Your task to perform on an android device: find snoozed emails in the gmail app Image 0: 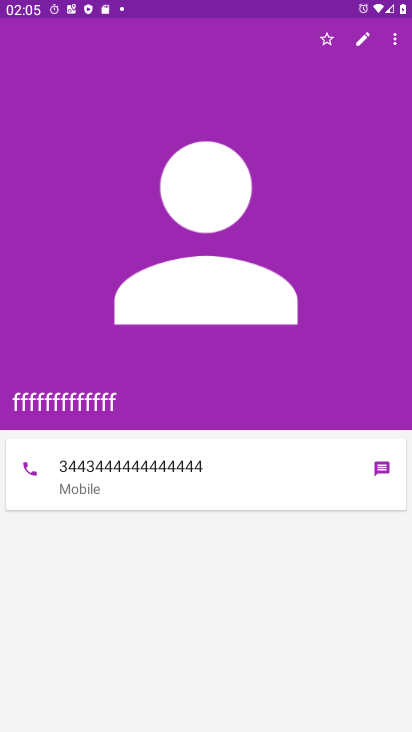
Step 0: press home button
Your task to perform on an android device: find snoozed emails in the gmail app Image 1: 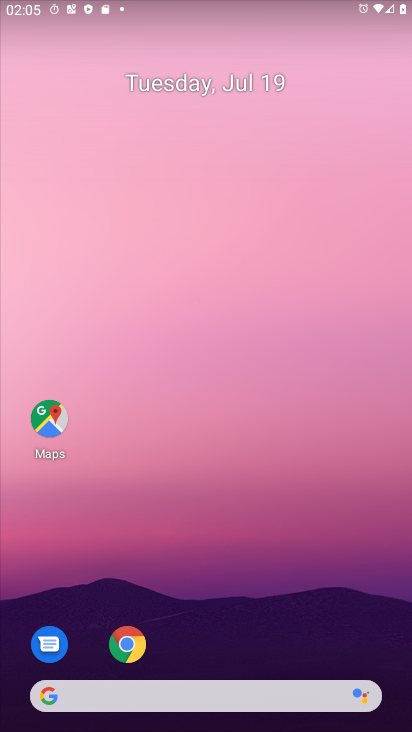
Step 1: drag from (226, 726) to (226, 155)
Your task to perform on an android device: find snoozed emails in the gmail app Image 2: 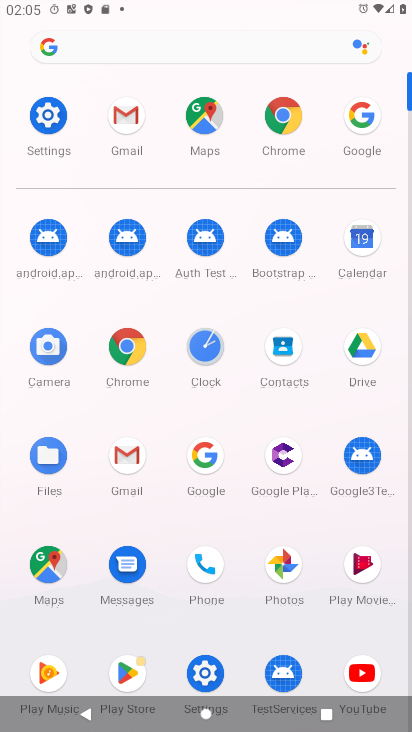
Step 2: click (121, 462)
Your task to perform on an android device: find snoozed emails in the gmail app Image 3: 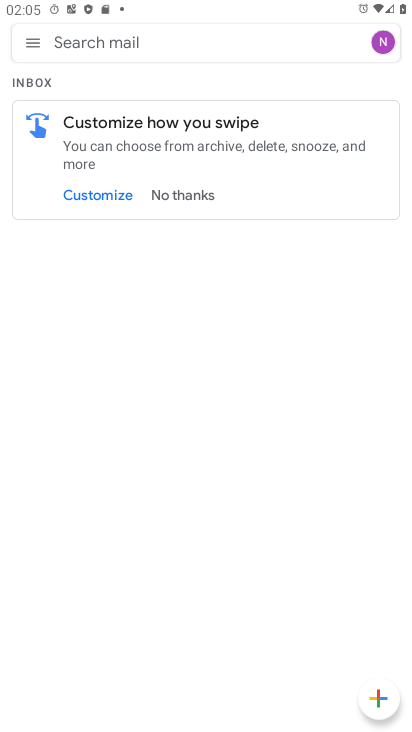
Step 3: click (36, 46)
Your task to perform on an android device: find snoozed emails in the gmail app Image 4: 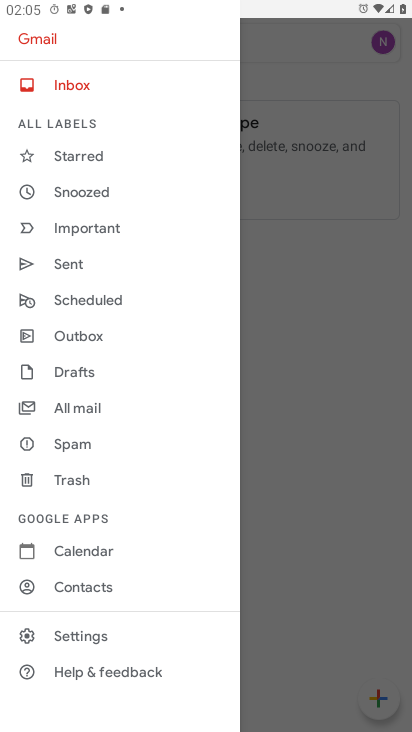
Step 4: click (86, 192)
Your task to perform on an android device: find snoozed emails in the gmail app Image 5: 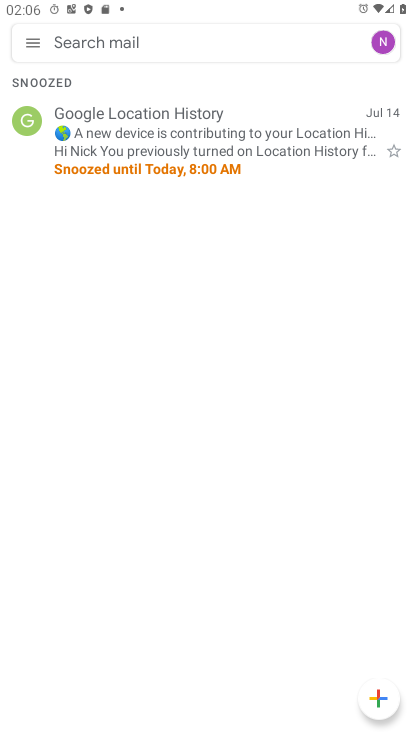
Step 5: task complete